Your task to perform on an android device: change the clock display to digital Image 0: 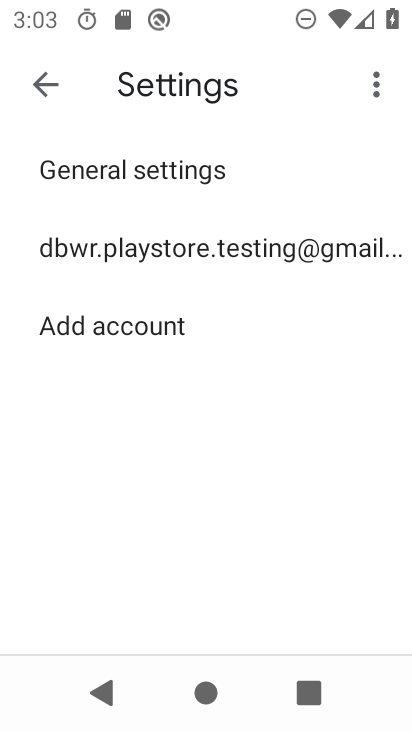
Step 0: press home button
Your task to perform on an android device: change the clock display to digital Image 1: 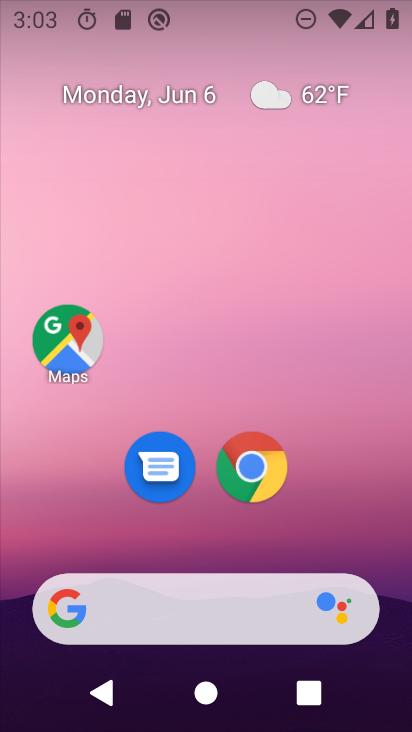
Step 1: drag from (220, 558) to (219, 147)
Your task to perform on an android device: change the clock display to digital Image 2: 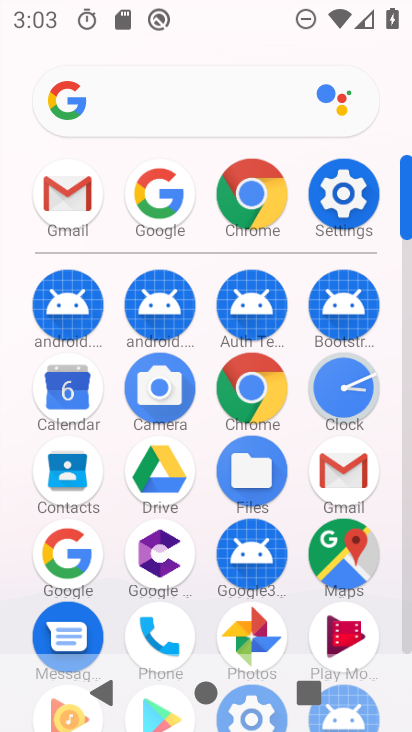
Step 2: click (336, 395)
Your task to perform on an android device: change the clock display to digital Image 3: 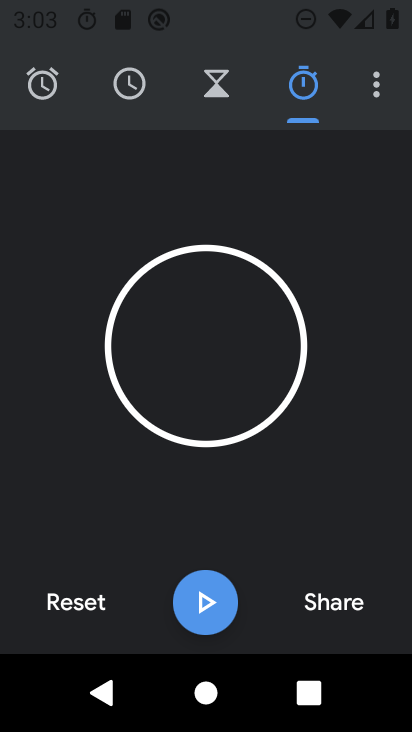
Step 3: click (371, 97)
Your task to perform on an android device: change the clock display to digital Image 4: 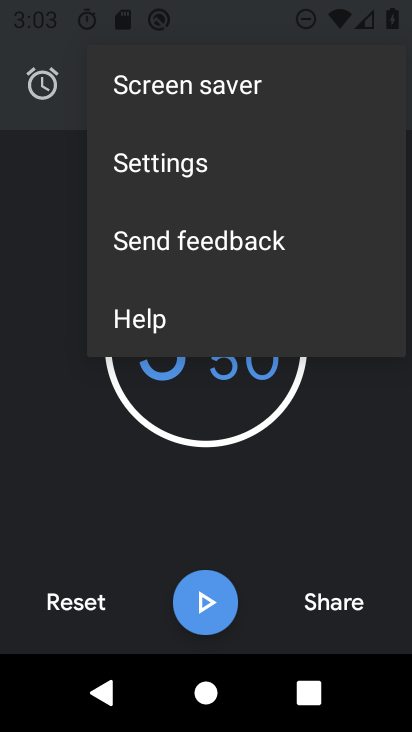
Step 4: click (211, 154)
Your task to perform on an android device: change the clock display to digital Image 5: 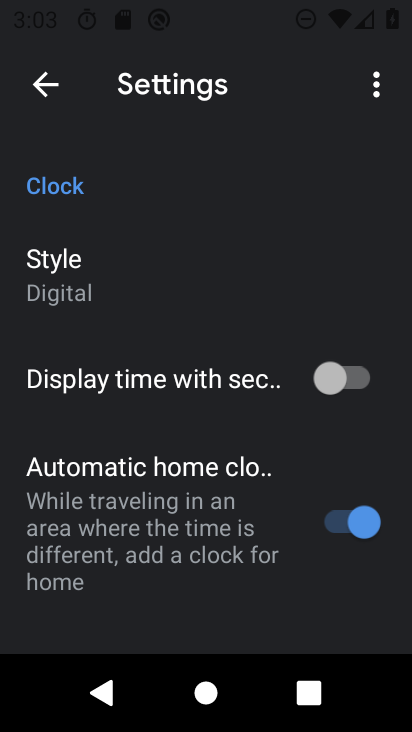
Step 5: task complete